Your task to perform on an android device: turn on javascript in the chrome app Image 0: 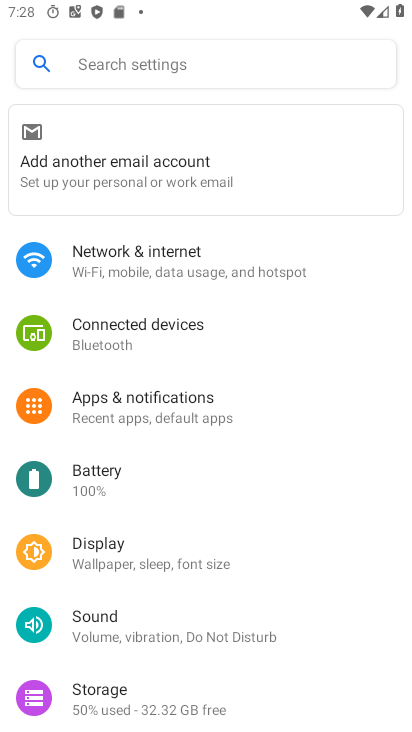
Step 0: press home button
Your task to perform on an android device: turn on javascript in the chrome app Image 1: 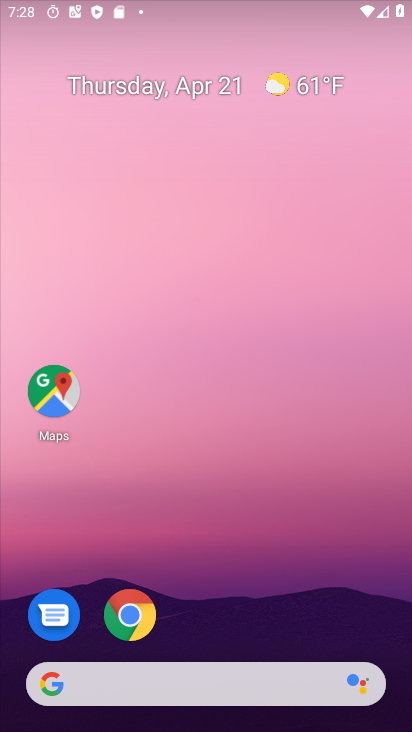
Step 1: drag from (188, 643) to (301, 111)
Your task to perform on an android device: turn on javascript in the chrome app Image 2: 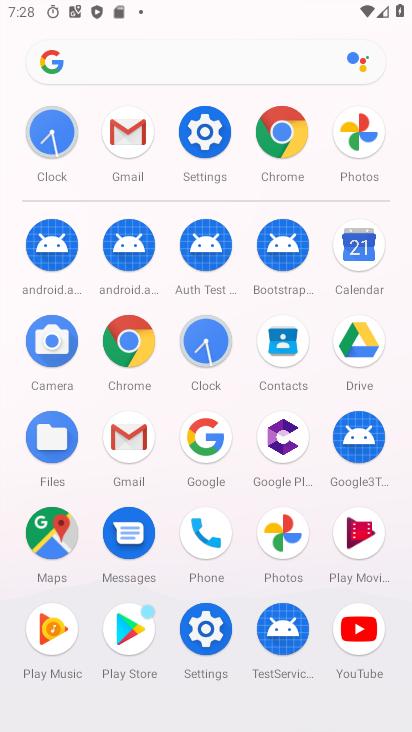
Step 2: click (121, 333)
Your task to perform on an android device: turn on javascript in the chrome app Image 3: 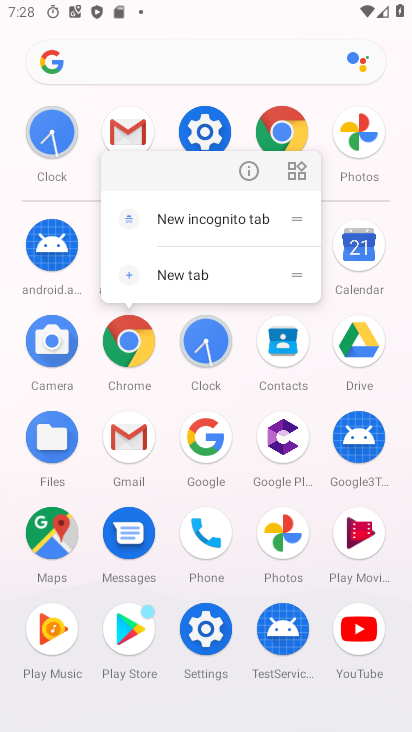
Step 3: click (244, 176)
Your task to perform on an android device: turn on javascript in the chrome app Image 4: 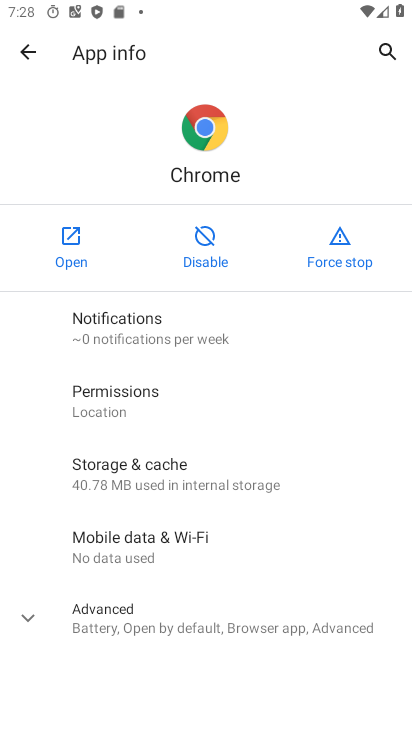
Step 4: click (83, 260)
Your task to perform on an android device: turn on javascript in the chrome app Image 5: 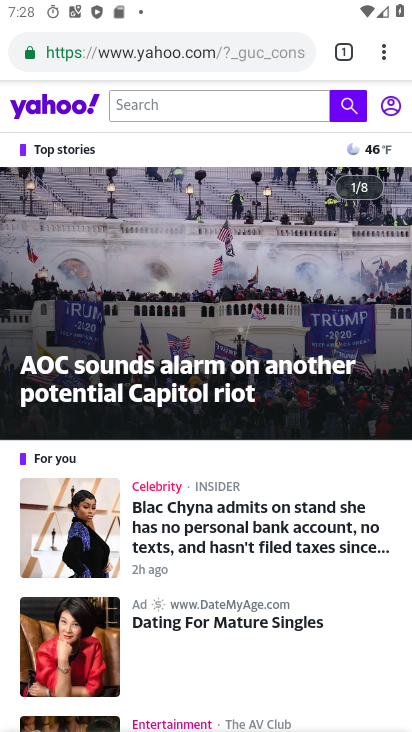
Step 5: drag from (386, 49) to (245, 663)
Your task to perform on an android device: turn on javascript in the chrome app Image 6: 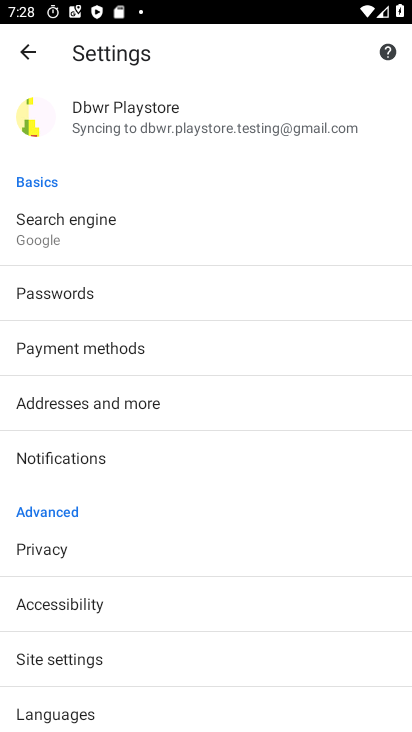
Step 6: click (162, 659)
Your task to perform on an android device: turn on javascript in the chrome app Image 7: 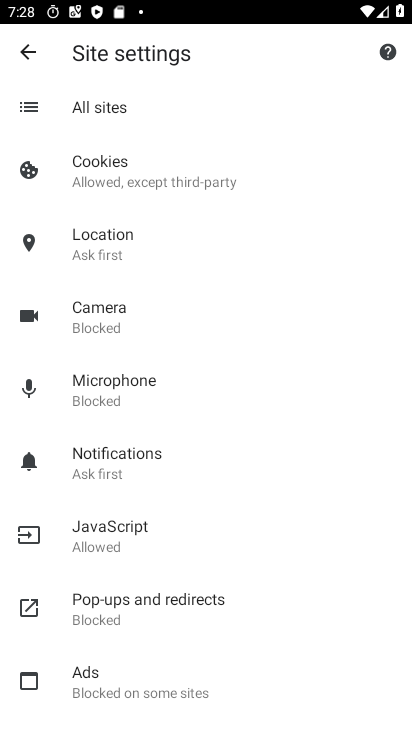
Step 7: click (163, 539)
Your task to perform on an android device: turn on javascript in the chrome app Image 8: 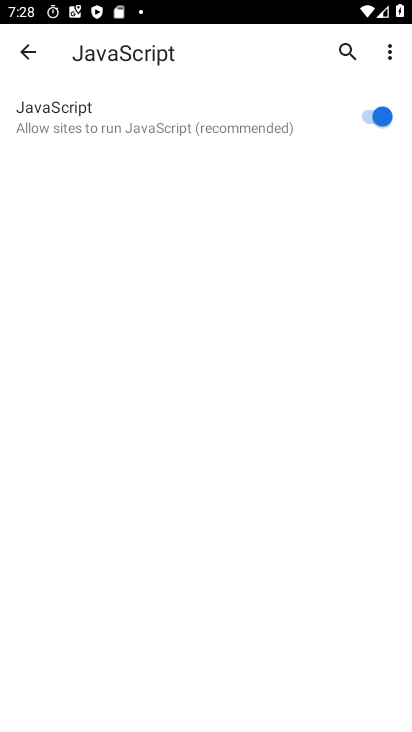
Step 8: task complete